Your task to perform on an android device: Open the web browser Image 0: 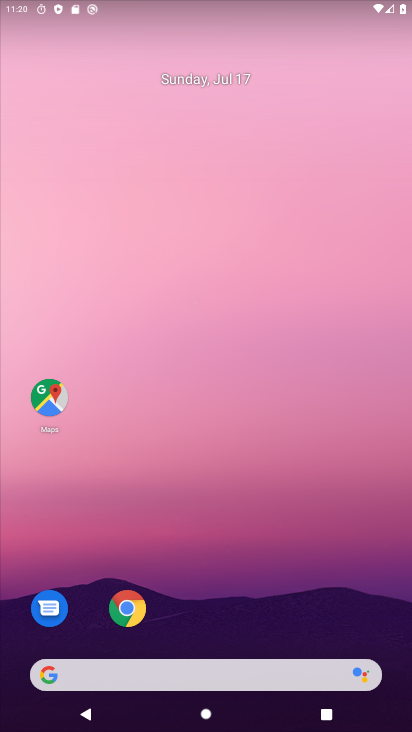
Step 0: click (132, 610)
Your task to perform on an android device: Open the web browser Image 1: 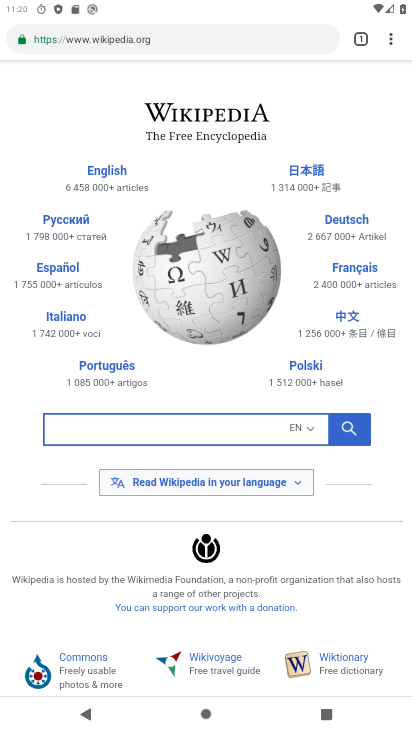
Step 1: task complete